Your task to perform on an android device: open app "Nova Launcher" Image 0: 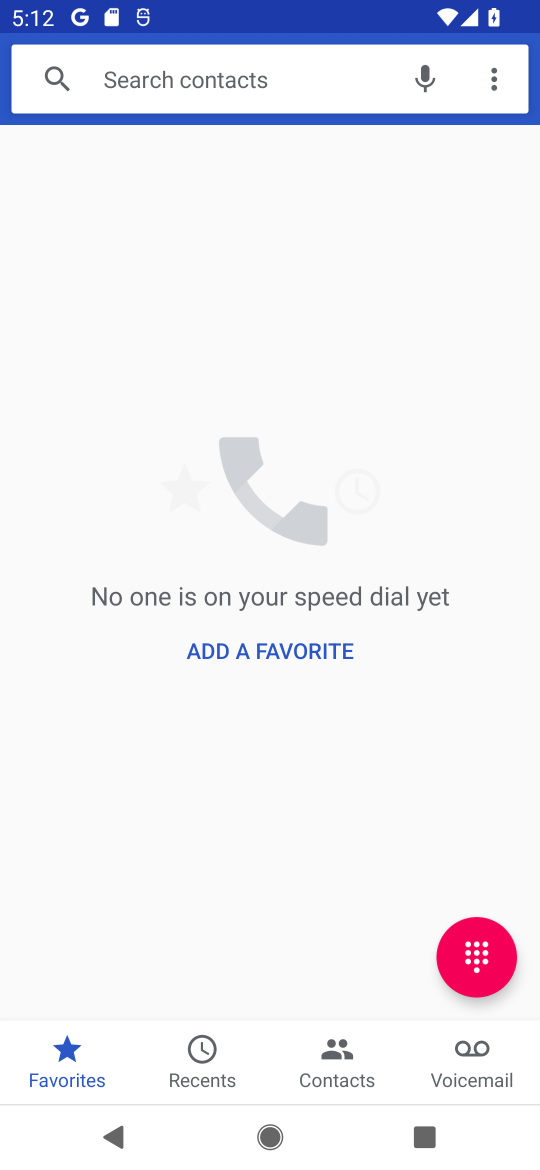
Step 0: press home button
Your task to perform on an android device: open app "Nova Launcher" Image 1: 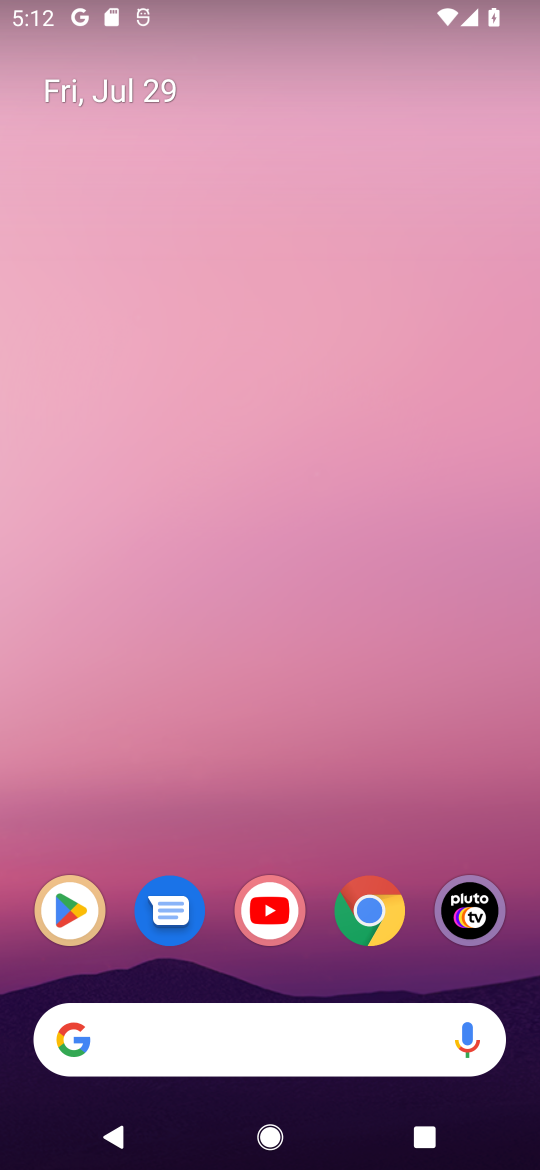
Step 1: click (63, 916)
Your task to perform on an android device: open app "Nova Launcher" Image 2: 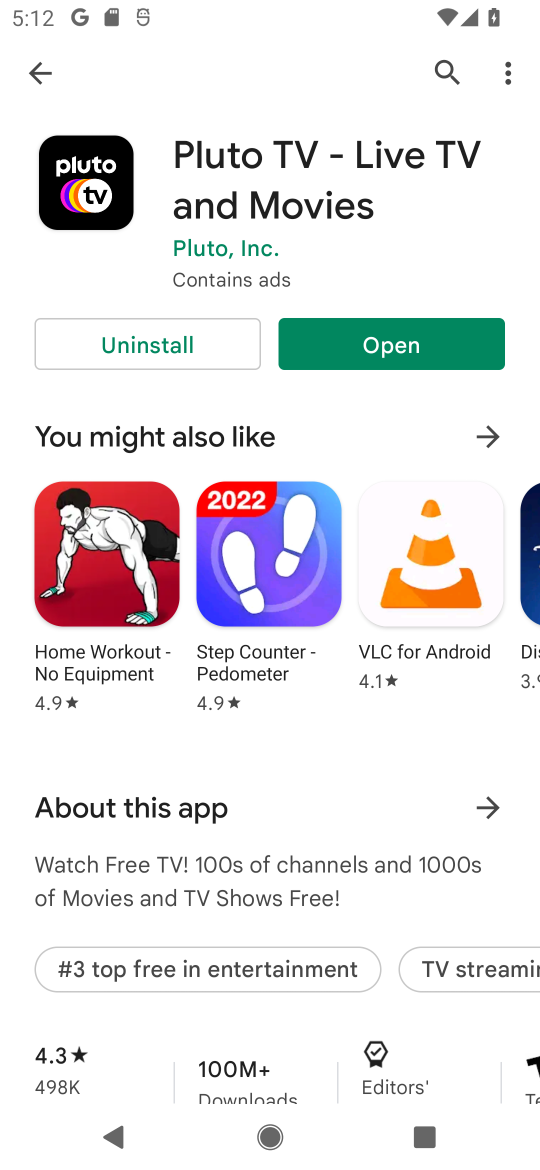
Step 2: click (439, 61)
Your task to perform on an android device: open app "Nova Launcher" Image 3: 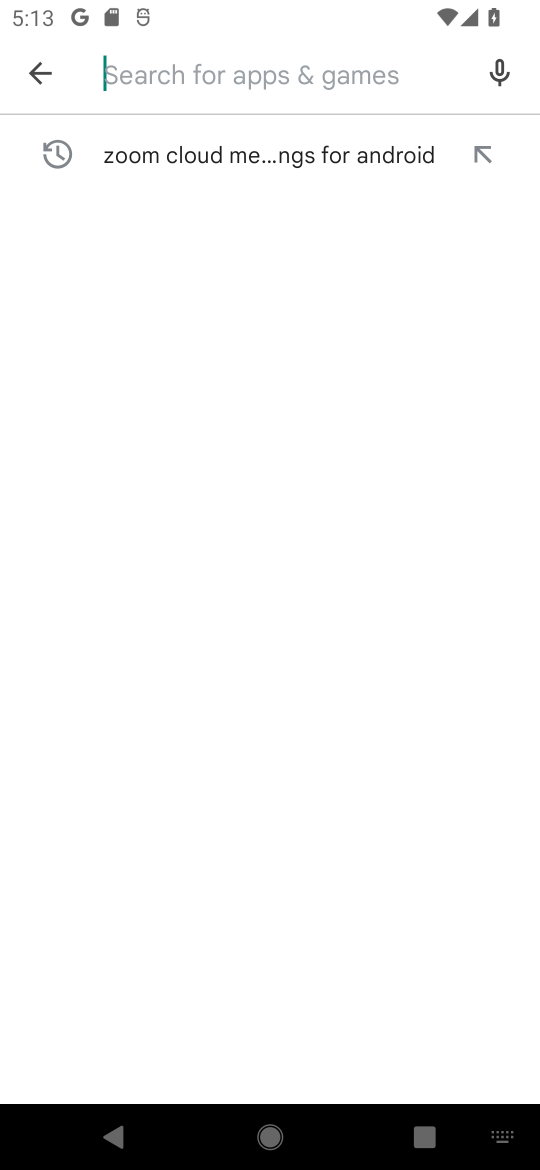
Step 3: type "nova launcher"
Your task to perform on an android device: open app "Nova Launcher" Image 4: 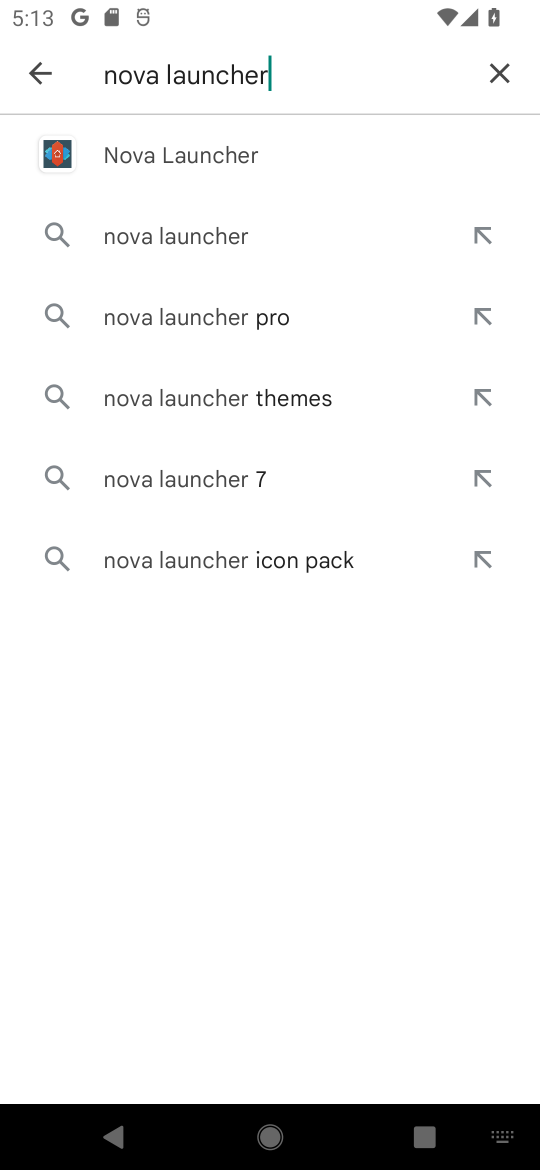
Step 4: click (209, 163)
Your task to perform on an android device: open app "Nova Launcher" Image 5: 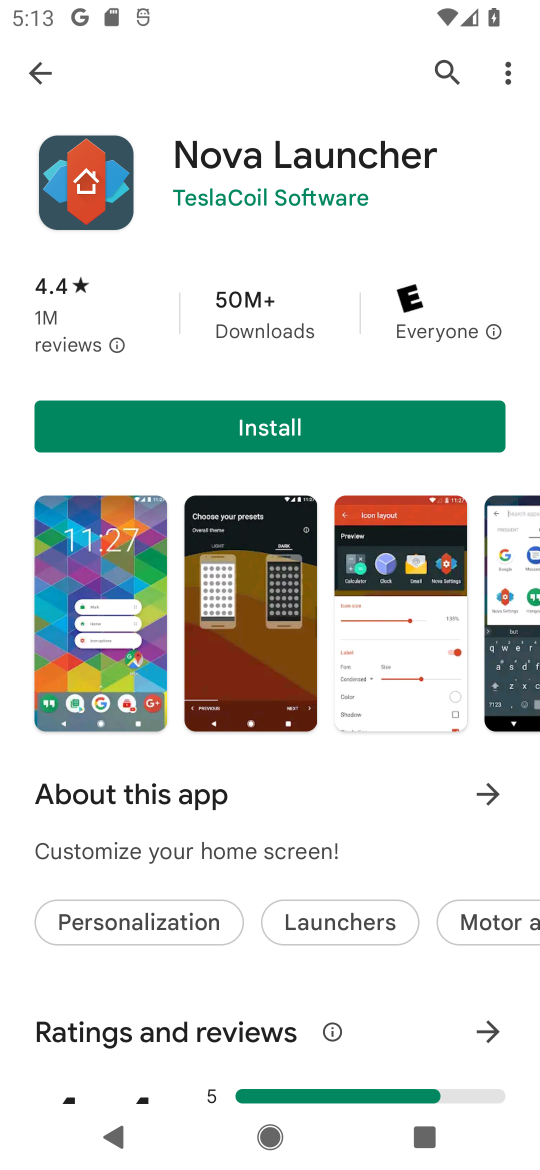
Step 5: task complete